Your task to perform on an android device: turn off sleep mode Image 0: 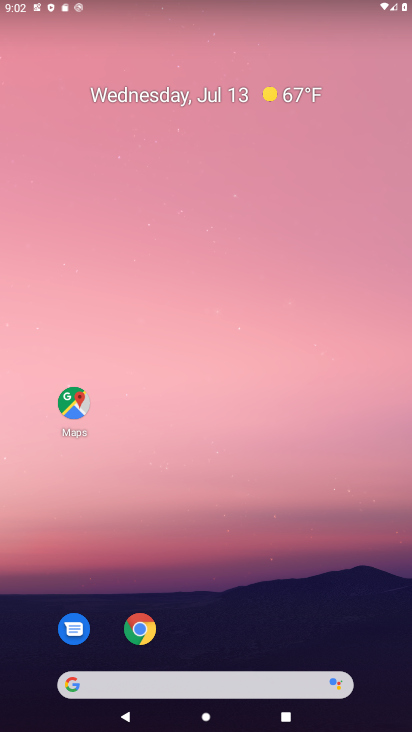
Step 0: drag from (200, 643) to (316, 28)
Your task to perform on an android device: turn off sleep mode Image 1: 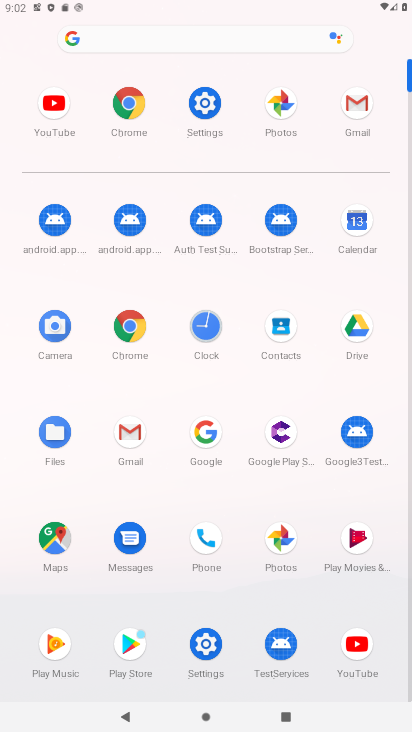
Step 1: click (204, 643)
Your task to perform on an android device: turn off sleep mode Image 2: 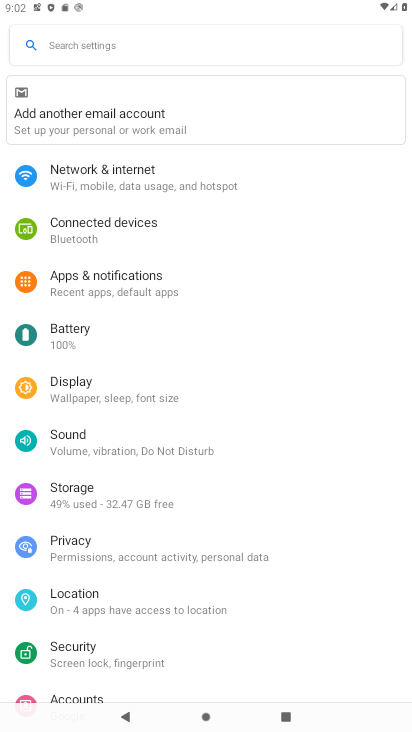
Step 2: click (245, 45)
Your task to perform on an android device: turn off sleep mode Image 3: 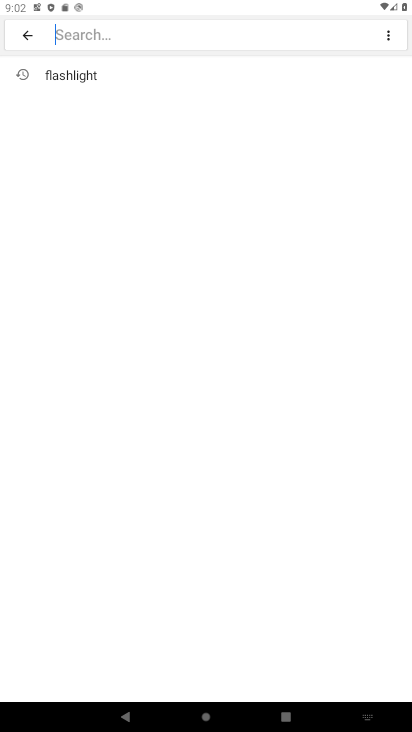
Step 3: type "sleep mode"
Your task to perform on an android device: turn off sleep mode Image 4: 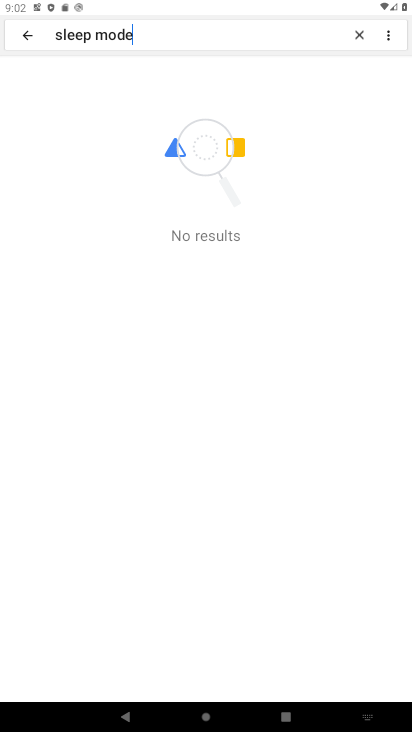
Step 4: task complete